Your task to perform on an android device: Show me the alarms in the clock app Image 0: 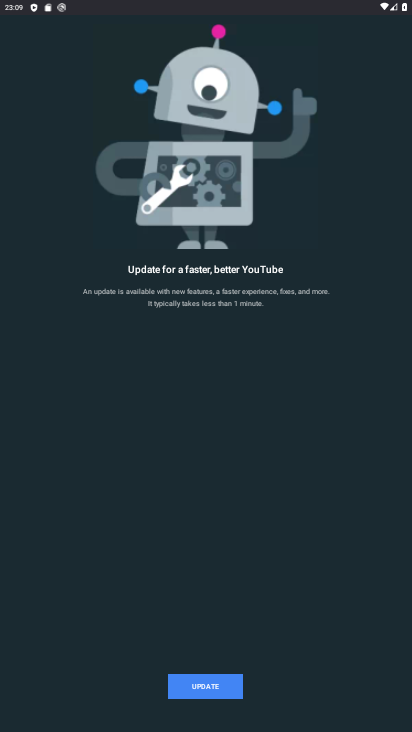
Step 0: press home button
Your task to perform on an android device: Show me the alarms in the clock app Image 1: 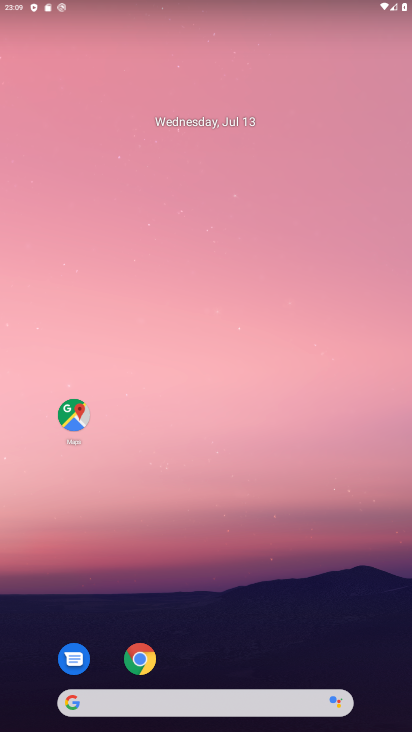
Step 1: drag from (354, 662) to (301, 136)
Your task to perform on an android device: Show me the alarms in the clock app Image 2: 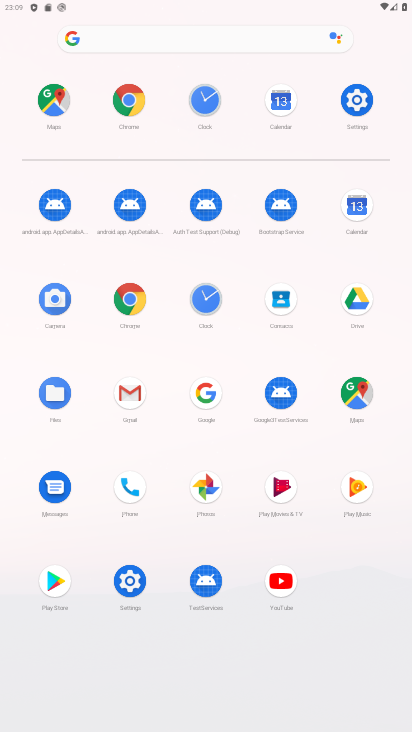
Step 2: click (204, 300)
Your task to perform on an android device: Show me the alarms in the clock app Image 3: 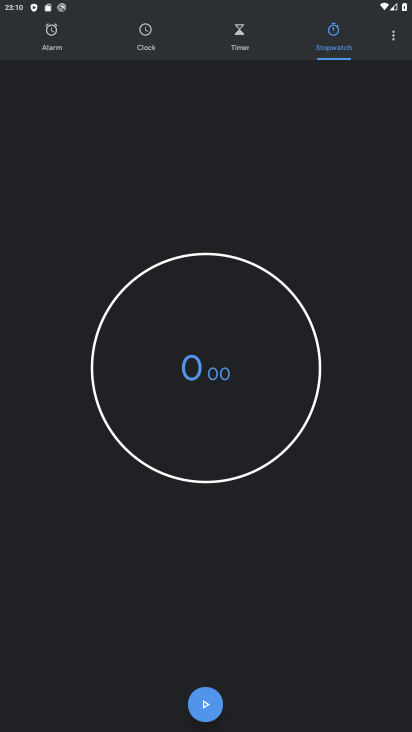
Step 3: click (46, 29)
Your task to perform on an android device: Show me the alarms in the clock app Image 4: 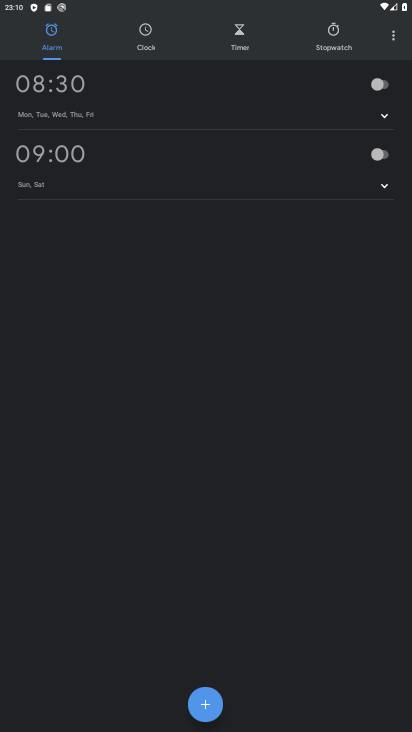
Step 4: task complete